Your task to perform on an android device: open app "Duolingo: language lessons" Image 0: 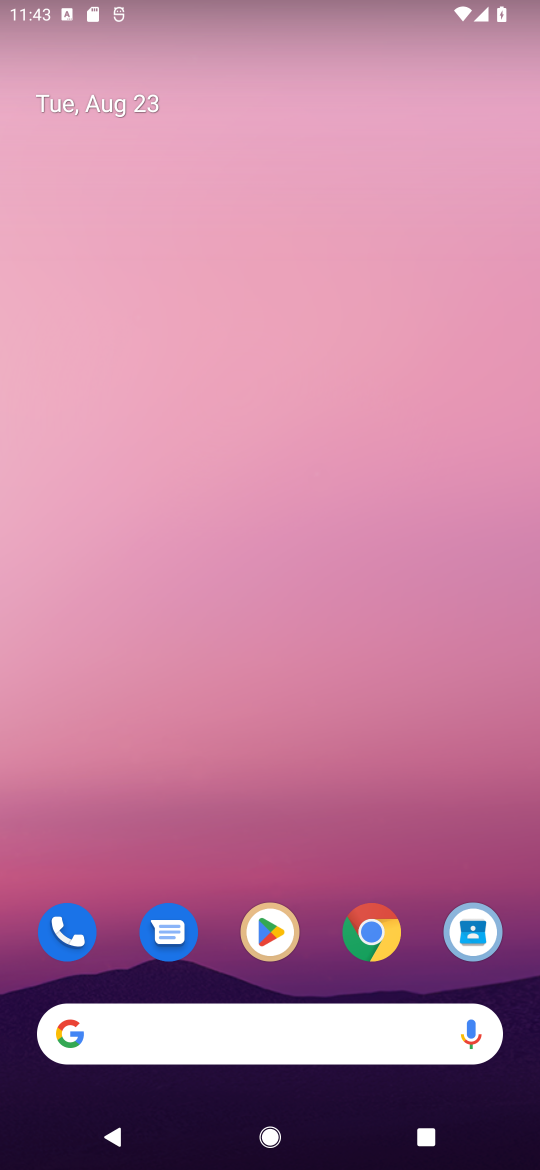
Step 0: click (269, 933)
Your task to perform on an android device: open app "Duolingo: language lessons" Image 1: 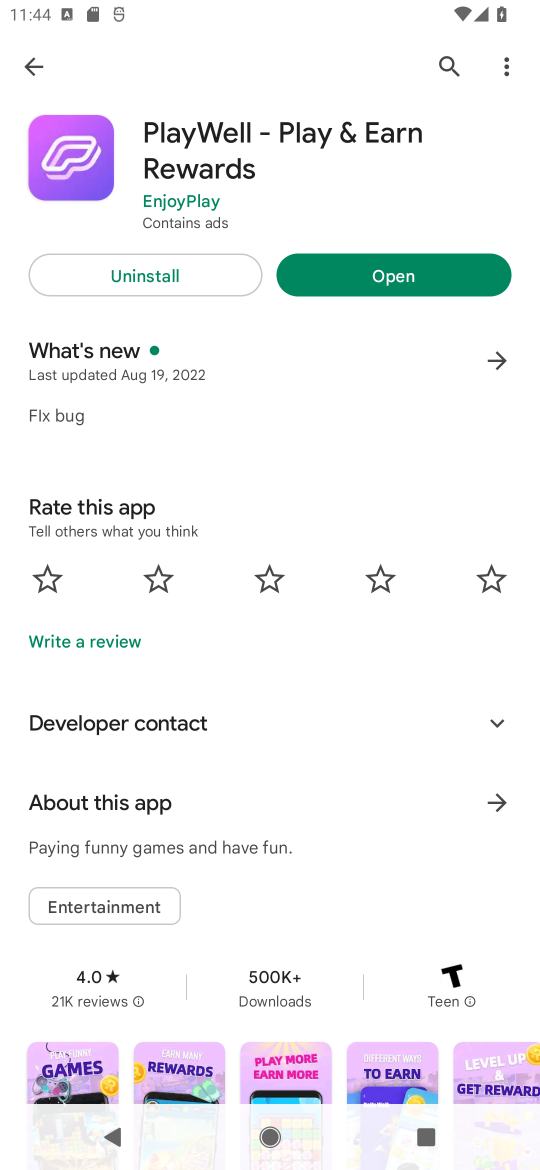
Step 1: click (432, 72)
Your task to perform on an android device: open app "Duolingo: language lessons" Image 2: 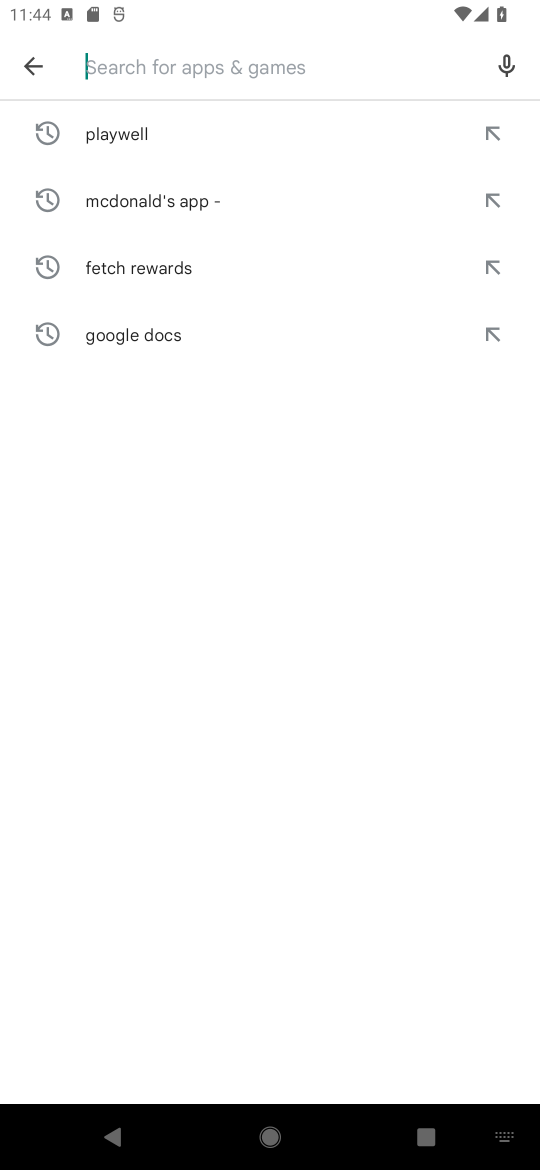
Step 2: click (174, 56)
Your task to perform on an android device: open app "Duolingo: language lessons" Image 3: 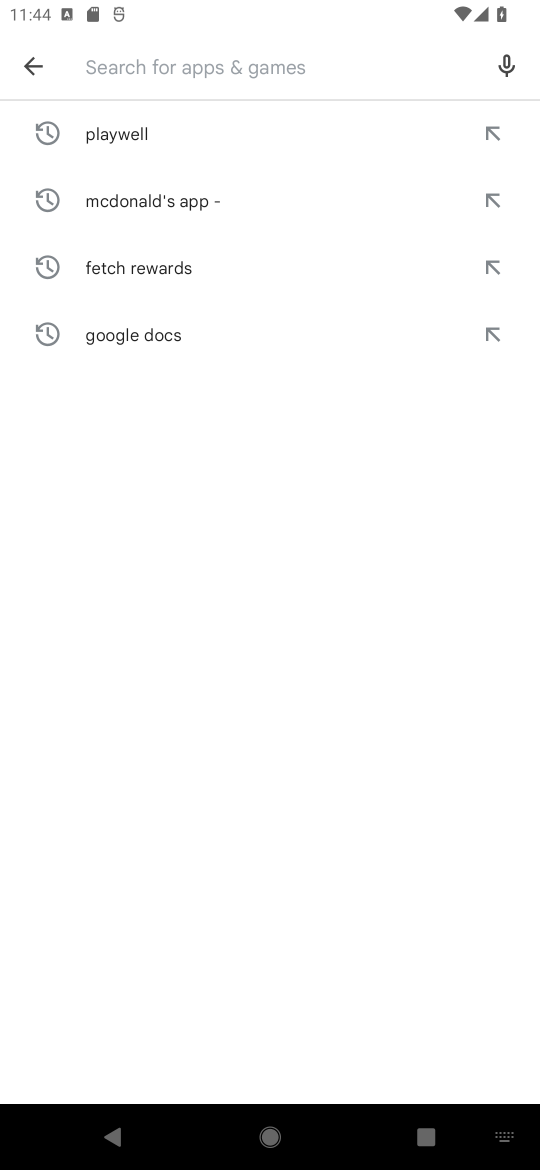
Step 3: type "Duolingo: language lessons"
Your task to perform on an android device: open app "Duolingo: language lessons" Image 4: 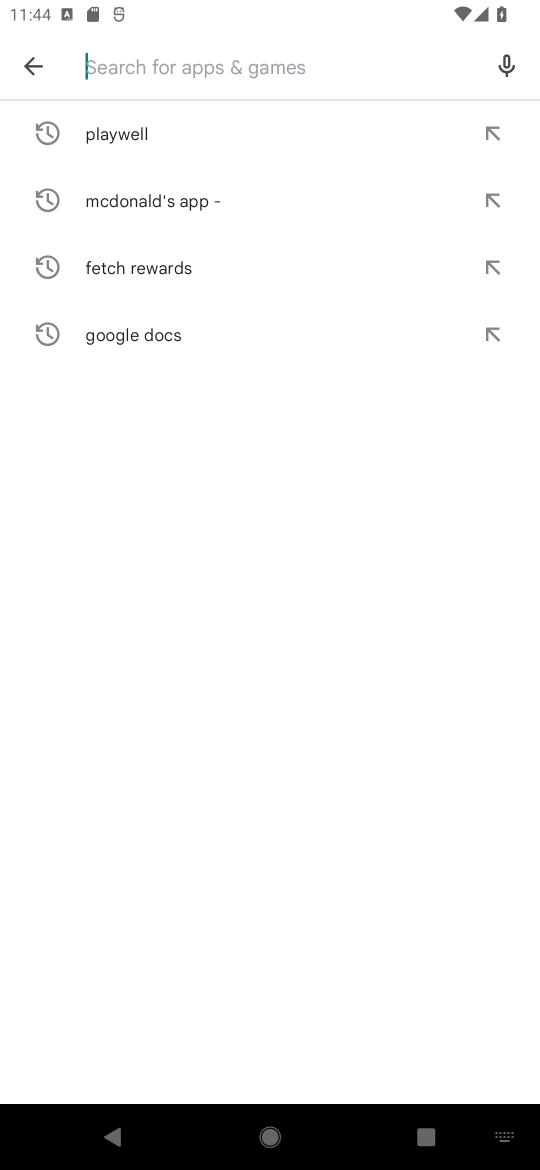
Step 4: click (237, 672)
Your task to perform on an android device: open app "Duolingo: language lessons" Image 5: 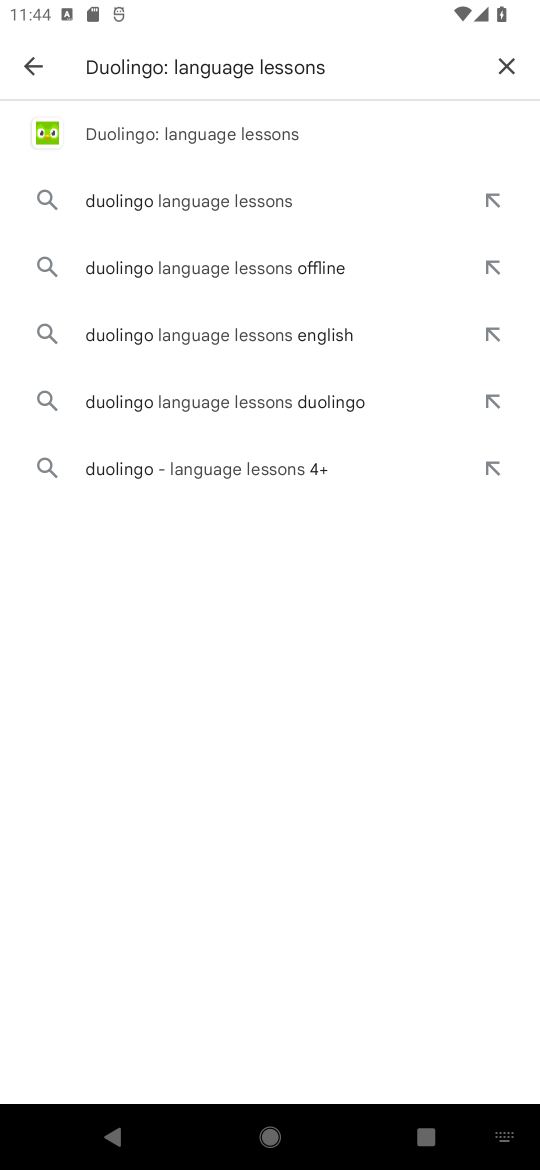
Step 5: click (202, 132)
Your task to perform on an android device: open app "Duolingo: language lessons" Image 6: 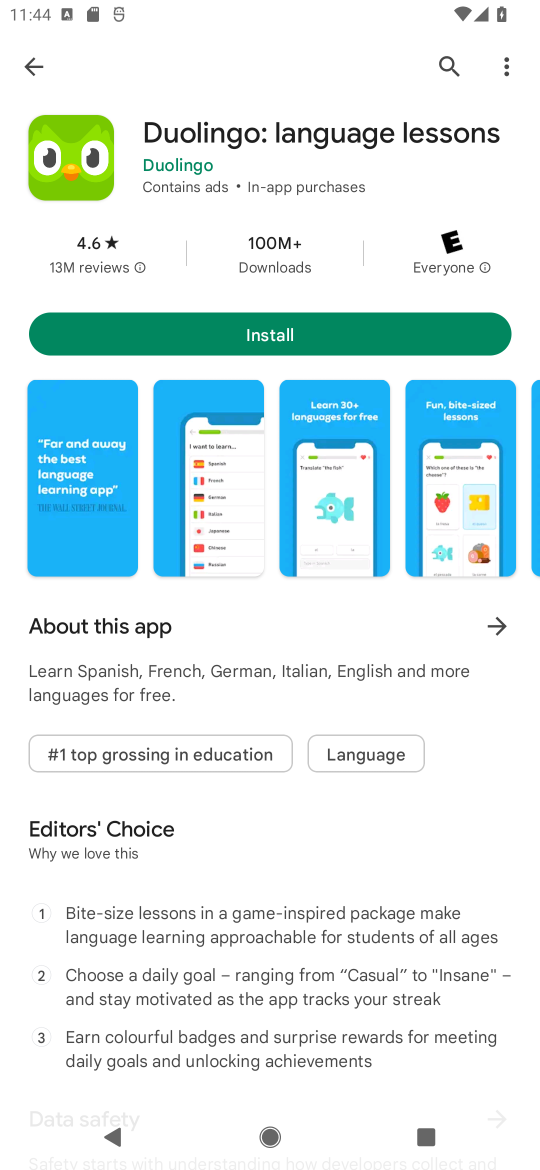
Step 6: task complete